Your task to perform on an android device: toggle priority inbox in the gmail app Image 0: 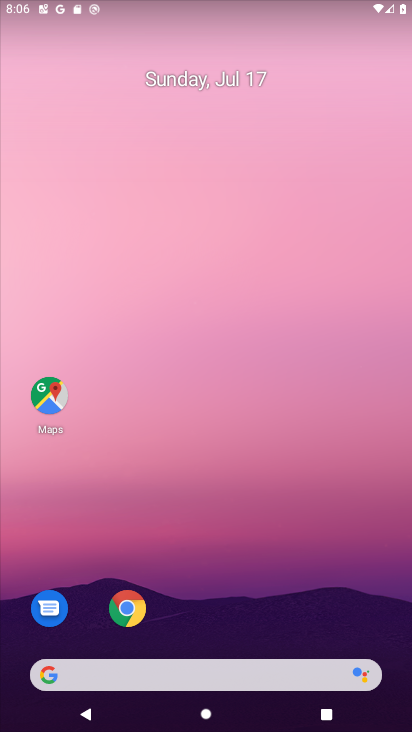
Step 0: drag from (105, 670) to (127, 228)
Your task to perform on an android device: toggle priority inbox in the gmail app Image 1: 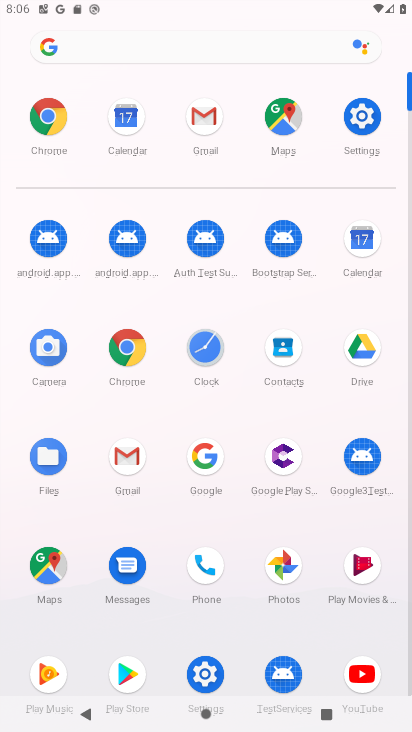
Step 1: click (203, 119)
Your task to perform on an android device: toggle priority inbox in the gmail app Image 2: 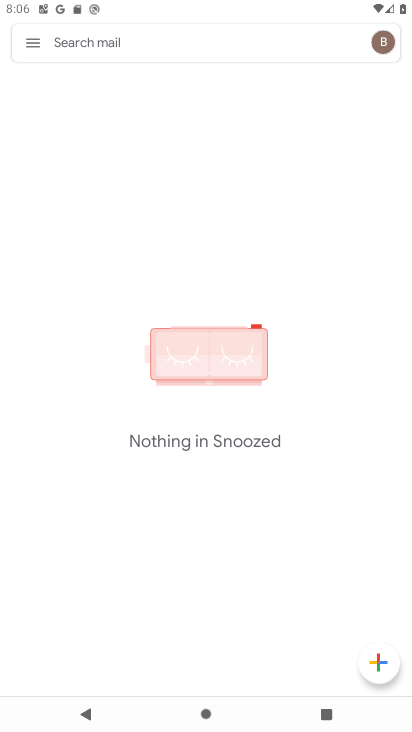
Step 2: click (41, 44)
Your task to perform on an android device: toggle priority inbox in the gmail app Image 3: 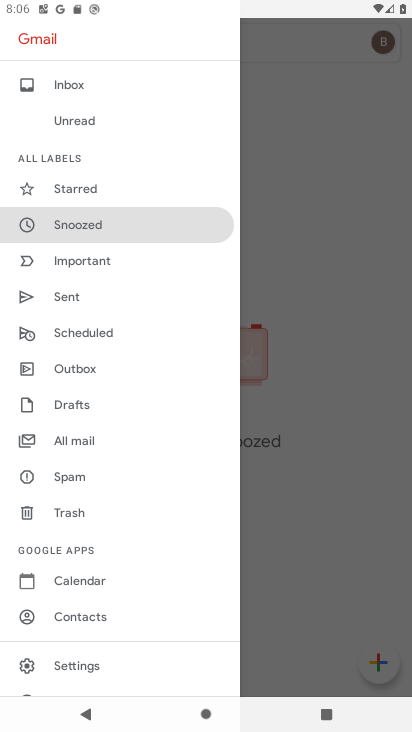
Step 3: click (61, 663)
Your task to perform on an android device: toggle priority inbox in the gmail app Image 4: 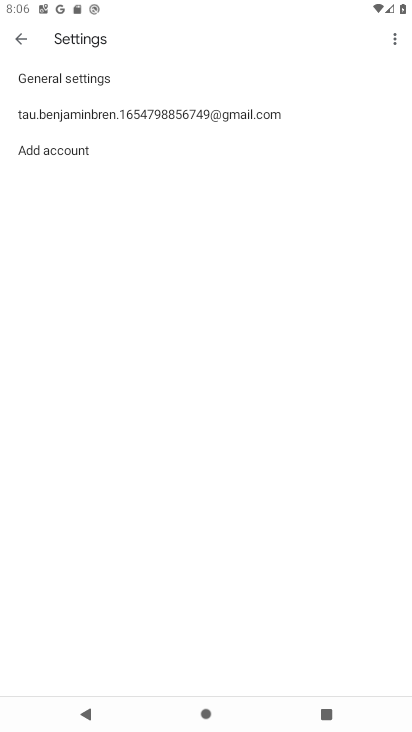
Step 4: click (32, 106)
Your task to perform on an android device: toggle priority inbox in the gmail app Image 5: 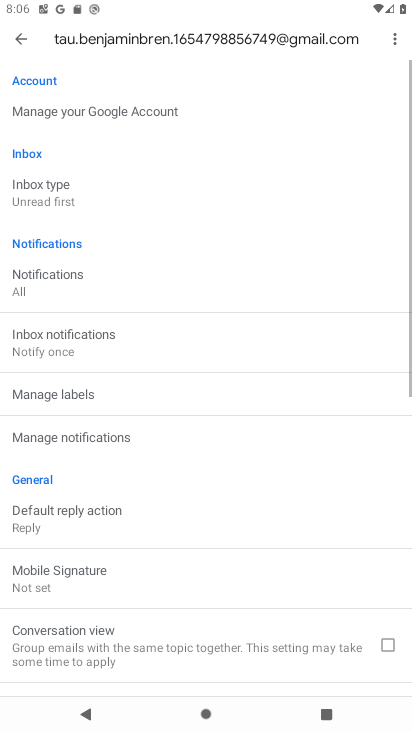
Step 5: click (59, 192)
Your task to perform on an android device: toggle priority inbox in the gmail app Image 6: 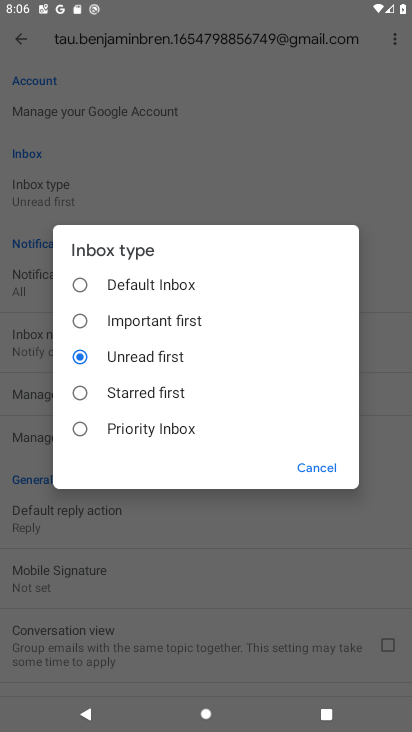
Step 6: click (301, 200)
Your task to perform on an android device: toggle priority inbox in the gmail app Image 7: 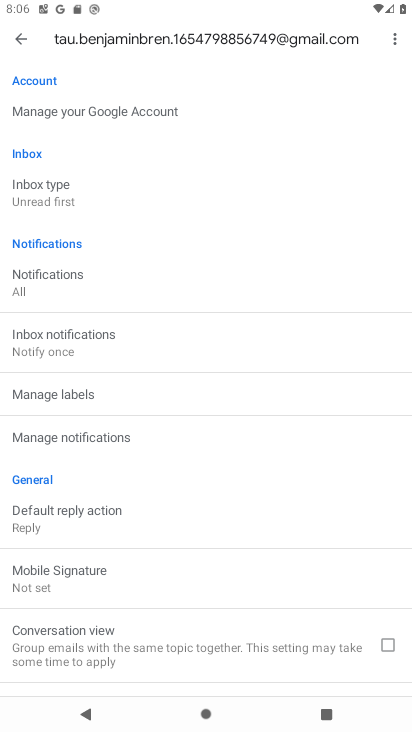
Step 7: click (47, 176)
Your task to perform on an android device: toggle priority inbox in the gmail app Image 8: 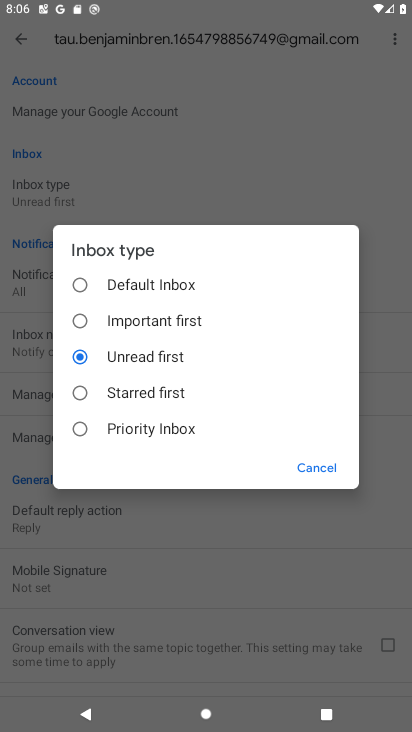
Step 8: click (134, 428)
Your task to perform on an android device: toggle priority inbox in the gmail app Image 9: 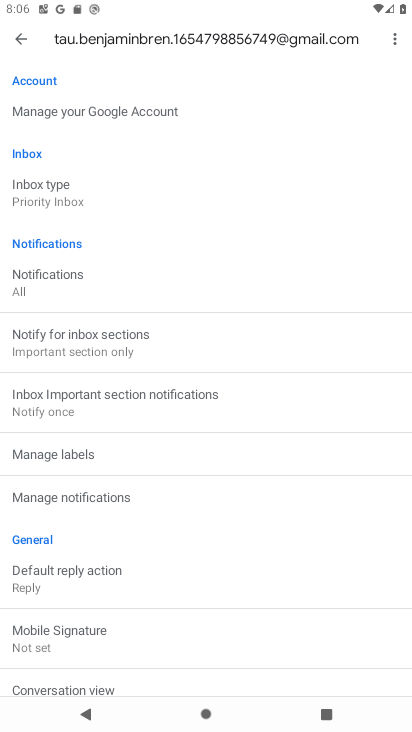
Step 9: task complete